Your task to perform on an android device: Go to wifi settings Image 0: 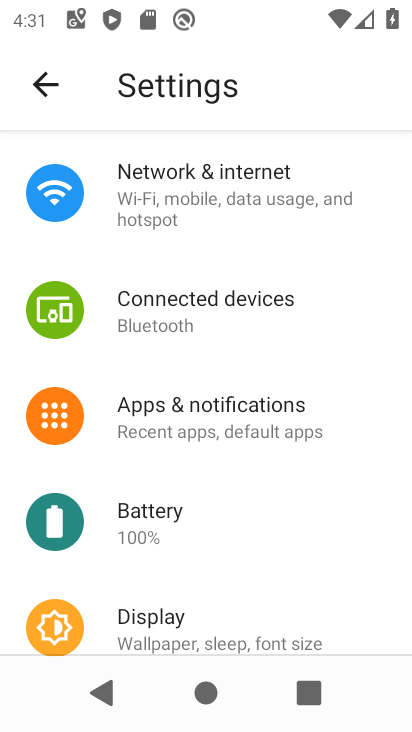
Step 0: click (169, 198)
Your task to perform on an android device: Go to wifi settings Image 1: 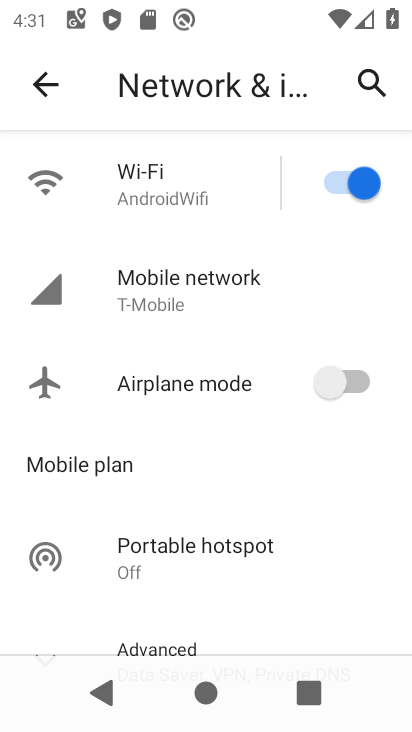
Step 1: click (128, 179)
Your task to perform on an android device: Go to wifi settings Image 2: 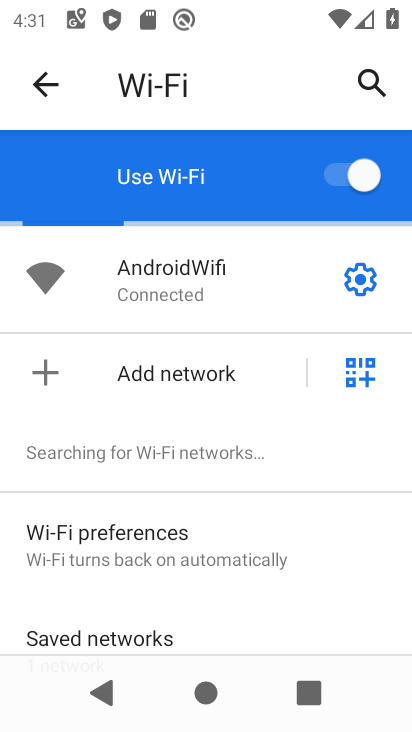
Step 2: drag from (238, 599) to (243, 338)
Your task to perform on an android device: Go to wifi settings Image 3: 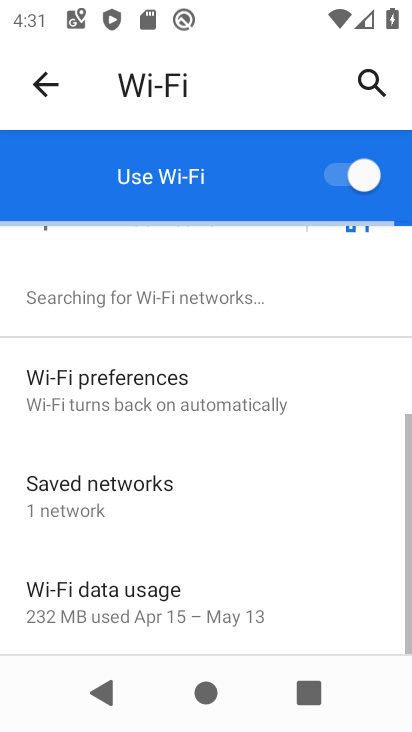
Step 3: drag from (243, 373) to (220, 565)
Your task to perform on an android device: Go to wifi settings Image 4: 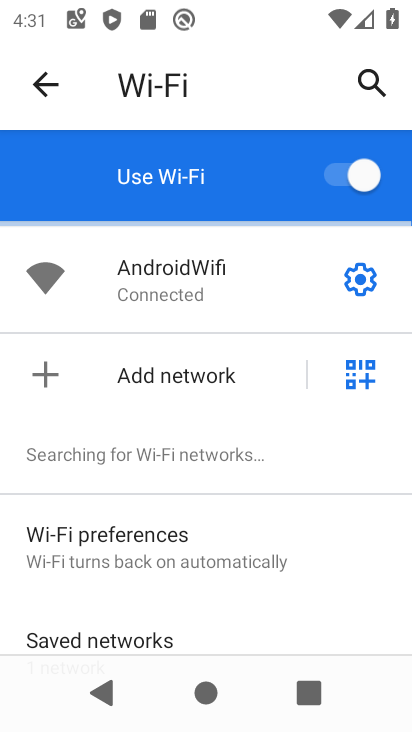
Step 4: click (225, 524)
Your task to perform on an android device: Go to wifi settings Image 5: 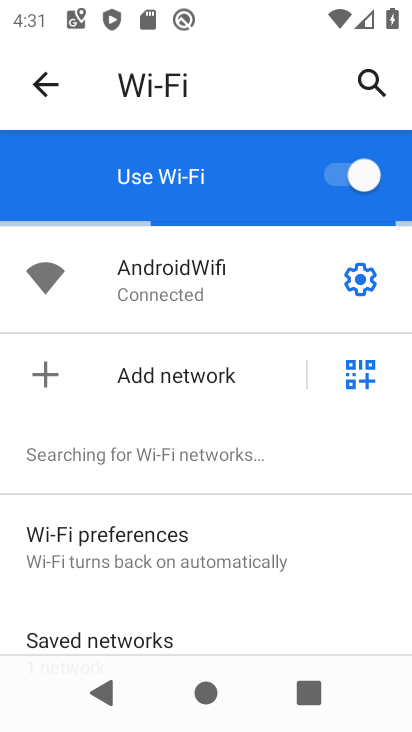
Step 5: click (351, 275)
Your task to perform on an android device: Go to wifi settings Image 6: 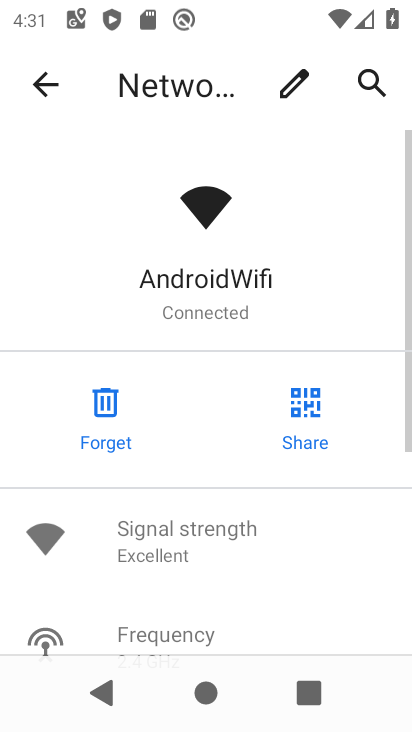
Step 6: task complete